Your task to perform on an android device: Search for seafood restaurants on Google Maps Image 0: 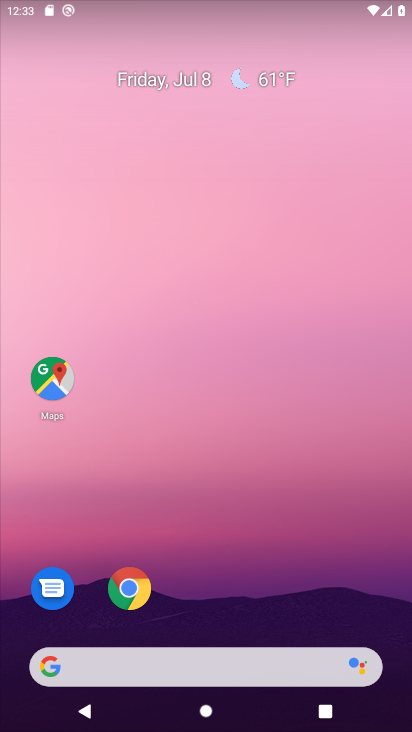
Step 0: click (49, 364)
Your task to perform on an android device: Search for seafood restaurants on Google Maps Image 1: 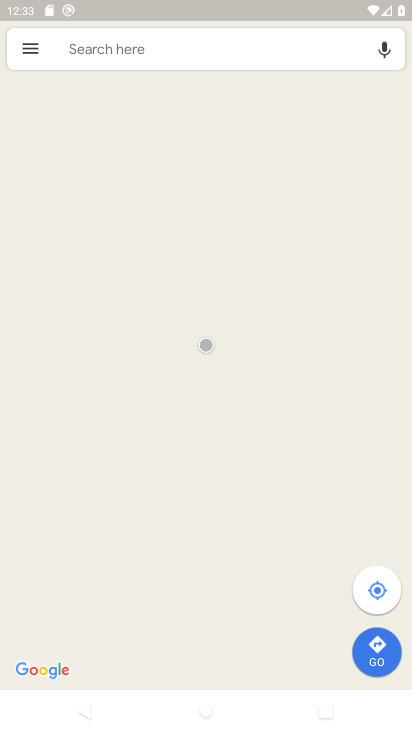
Step 1: click (99, 48)
Your task to perform on an android device: Search for seafood restaurants on Google Maps Image 2: 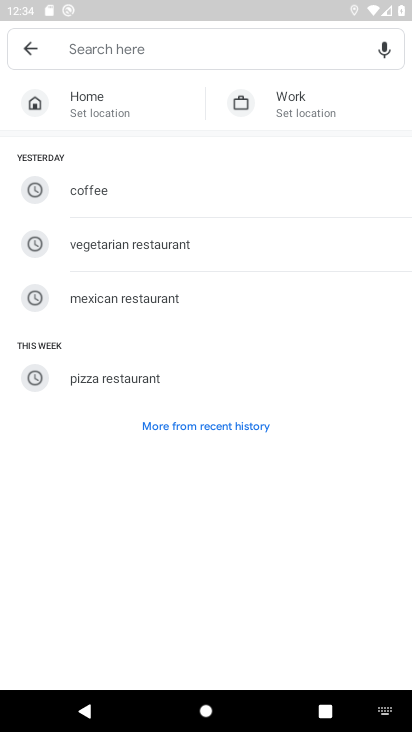
Step 2: type " seafood restaurants"
Your task to perform on an android device: Search for seafood restaurants on Google Maps Image 3: 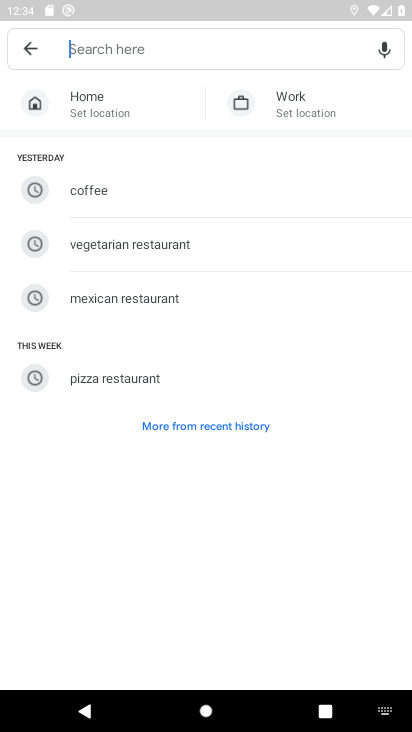
Step 3: click (92, 49)
Your task to perform on an android device: Search for seafood restaurants on Google Maps Image 4: 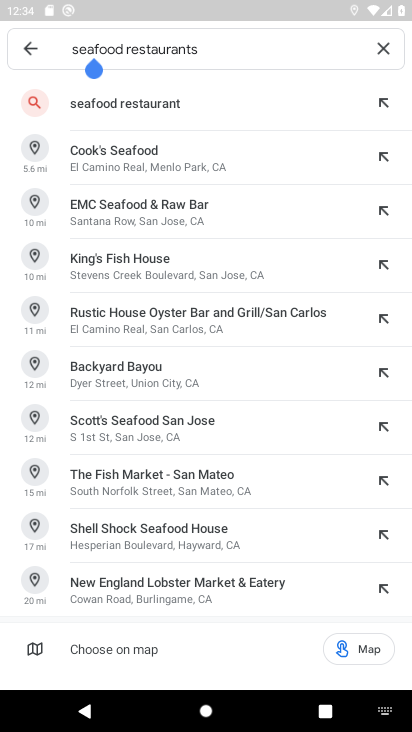
Step 4: click (129, 105)
Your task to perform on an android device: Search for seafood restaurants on Google Maps Image 5: 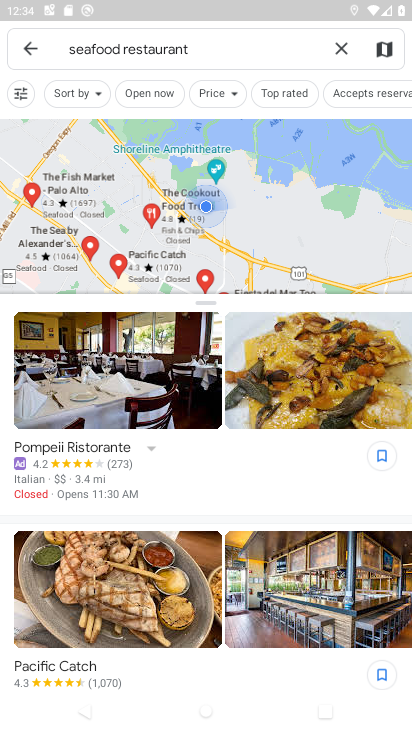
Step 5: task complete